Your task to perform on an android device: add a contact in the contacts app Image 0: 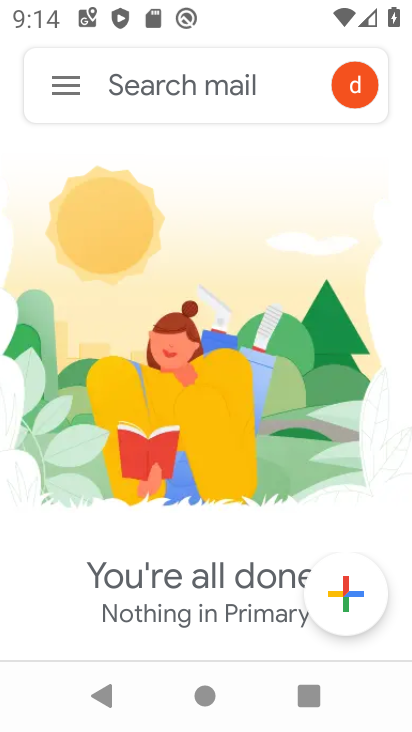
Step 0: press home button
Your task to perform on an android device: add a contact in the contacts app Image 1: 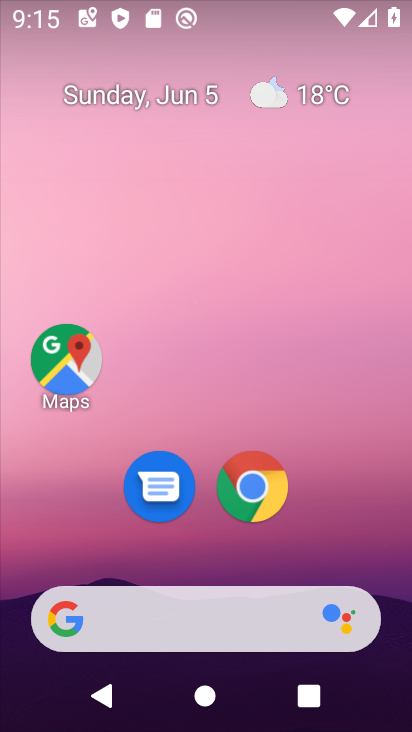
Step 1: drag from (366, 505) to (322, 6)
Your task to perform on an android device: add a contact in the contacts app Image 2: 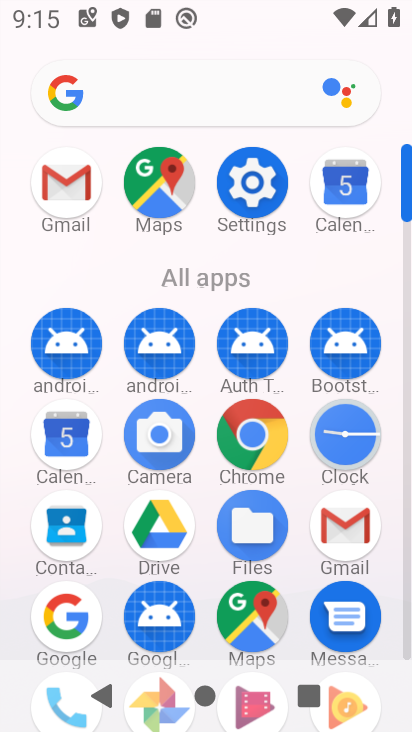
Step 2: click (80, 545)
Your task to perform on an android device: add a contact in the contacts app Image 3: 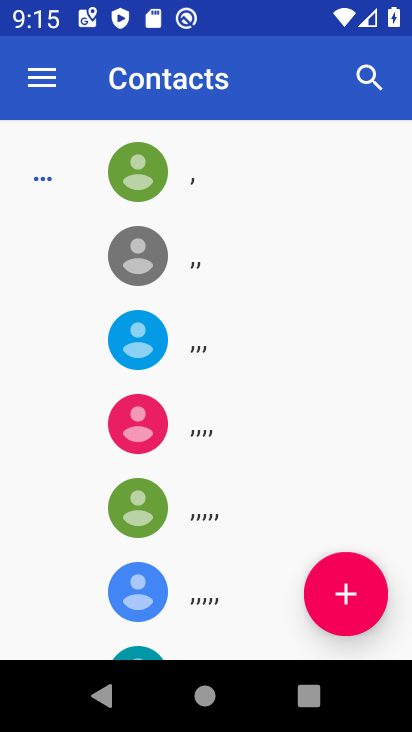
Step 3: click (345, 593)
Your task to perform on an android device: add a contact in the contacts app Image 4: 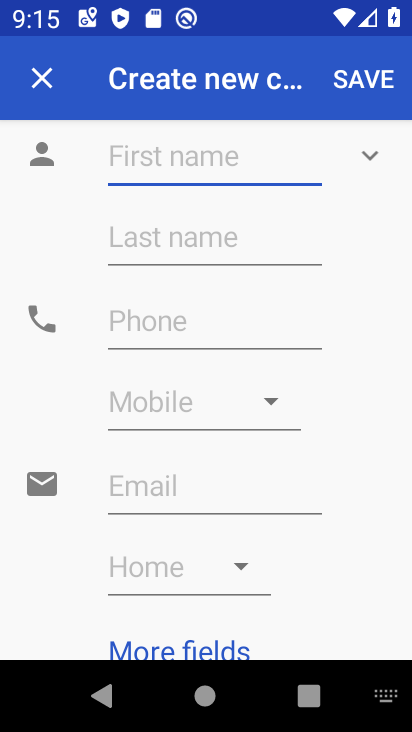
Step 4: type "lami"
Your task to perform on an android device: add a contact in the contacts app Image 5: 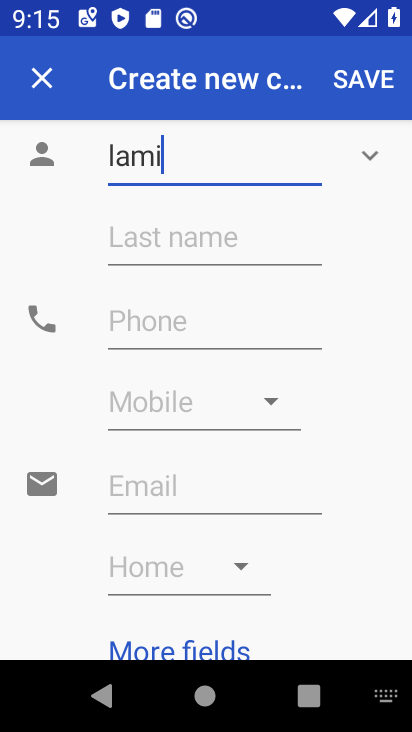
Step 5: click (237, 315)
Your task to perform on an android device: add a contact in the contacts app Image 6: 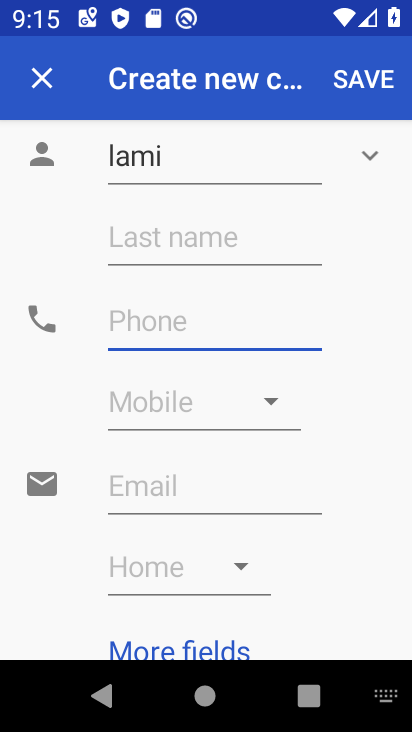
Step 6: type "9838373982"
Your task to perform on an android device: add a contact in the contacts app Image 7: 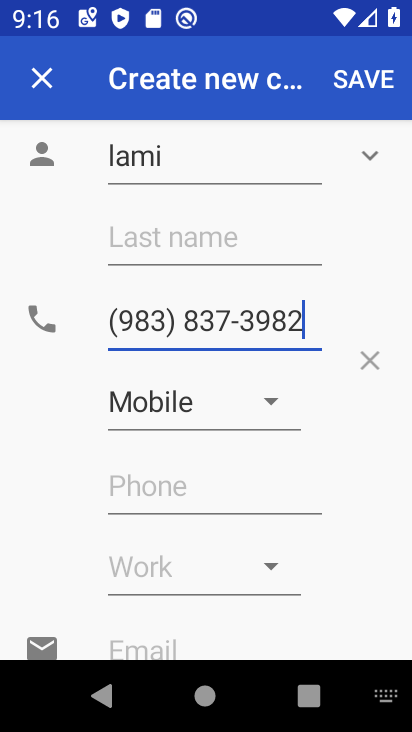
Step 7: click (363, 74)
Your task to perform on an android device: add a contact in the contacts app Image 8: 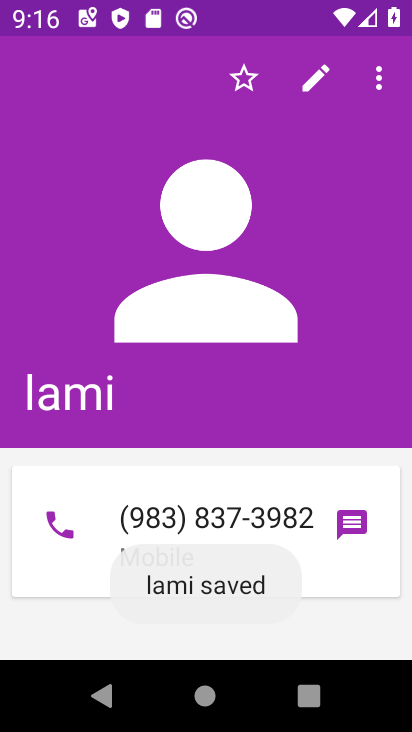
Step 8: task complete